Your task to perform on an android device: Search for pizza restaurants on Maps Image 0: 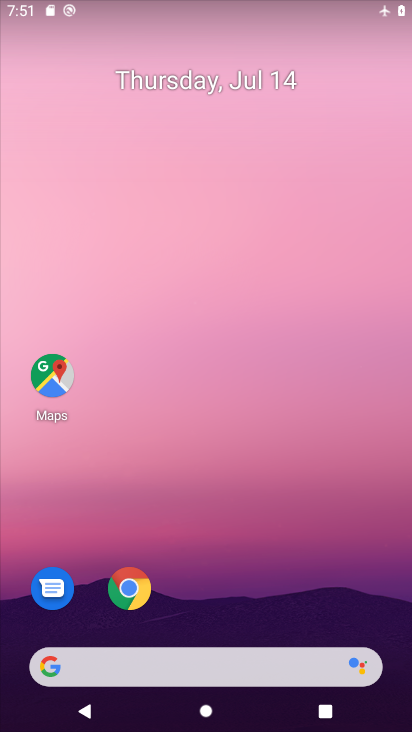
Step 0: click (43, 367)
Your task to perform on an android device: Search for pizza restaurants on Maps Image 1: 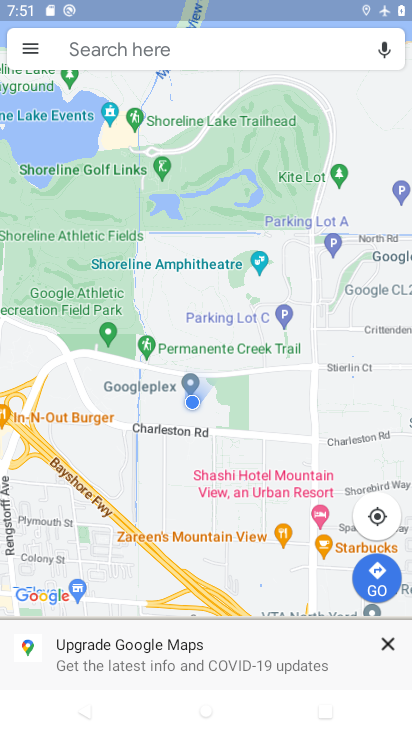
Step 1: click (230, 44)
Your task to perform on an android device: Search for pizza restaurants on Maps Image 2: 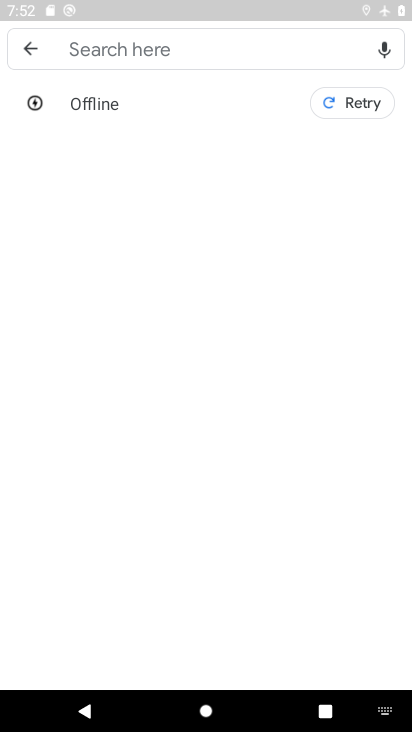
Step 2: type "pizza restaurants"
Your task to perform on an android device: Search for pizza restaurants on Maps Image 3: 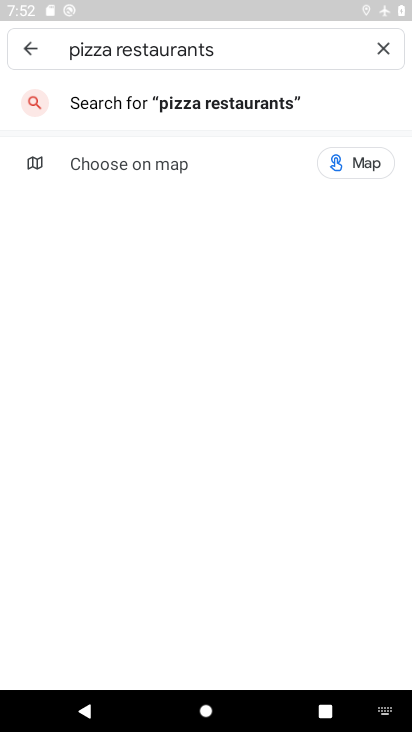
Step 3: task complete